Your task to perform on an android device: Open ESPN.com Image 0: 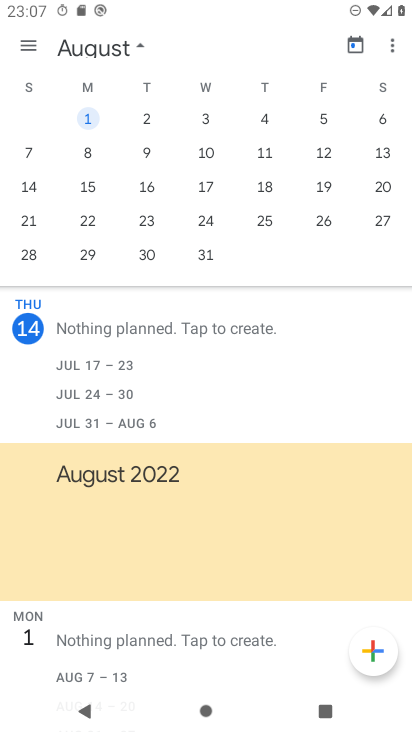
Step 0: press home button
Your task to perform on an android device: Open ESPN.com Image 1: 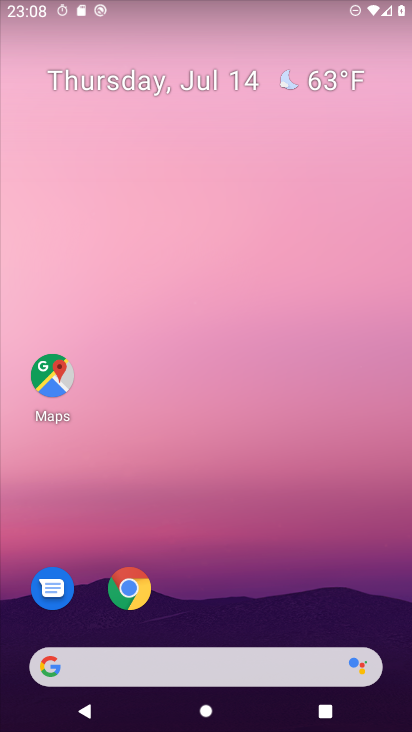
Step 1: drag from (347, 591) to (356, 169)
Your task to perform on an android device: Open ESPN.com Image 2: 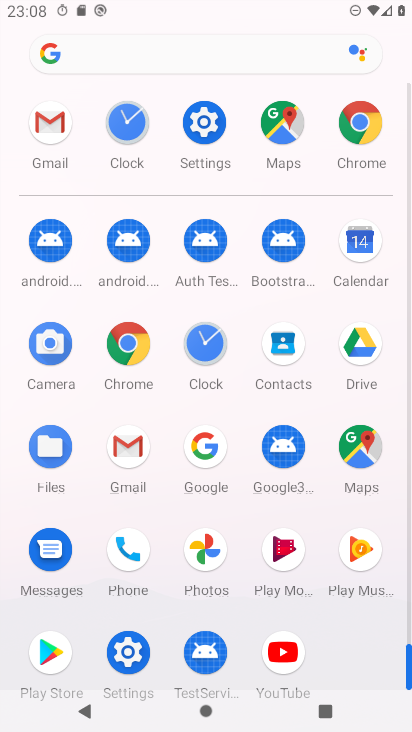
Step 2: click (373, 147)
Your task to perform on an android device: Open ESPN.com Image 3: 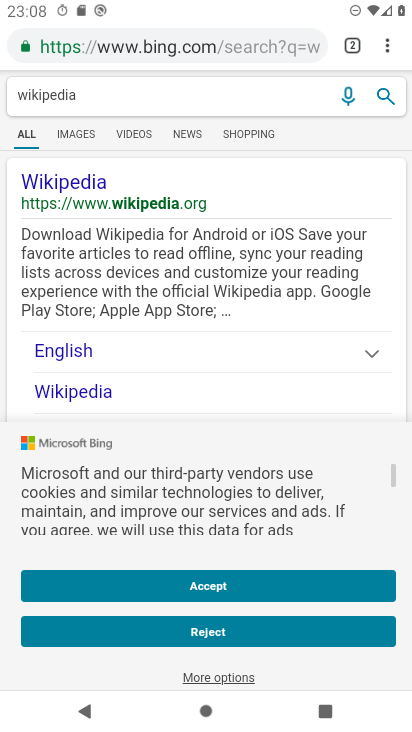
Step 3: click (248, 55)
Your task to perform on an android device: Open ESPN.com Image 4: 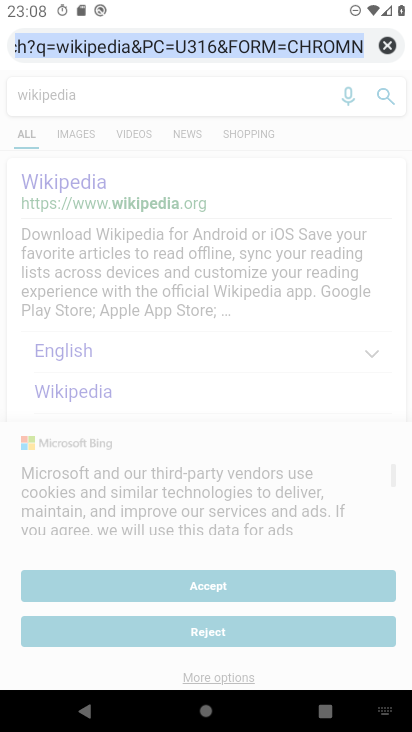
Step 4: type "espn.com"
Your task to perform on an android device: Open ESPN.com Image 5: 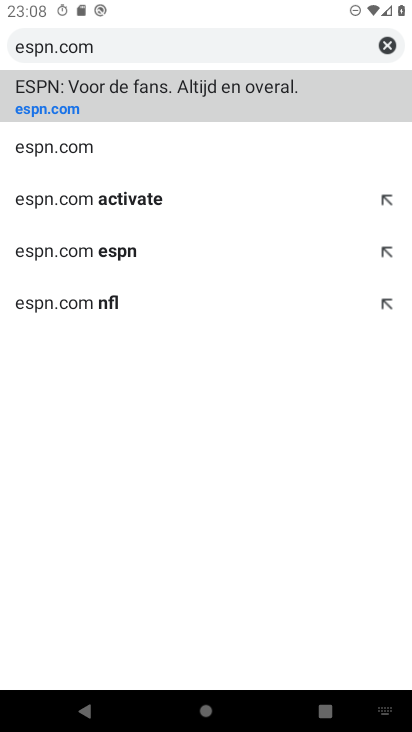
Step 5: click (330, 89)
Your task to perform on an android device: Open ESPN.com Image 6: 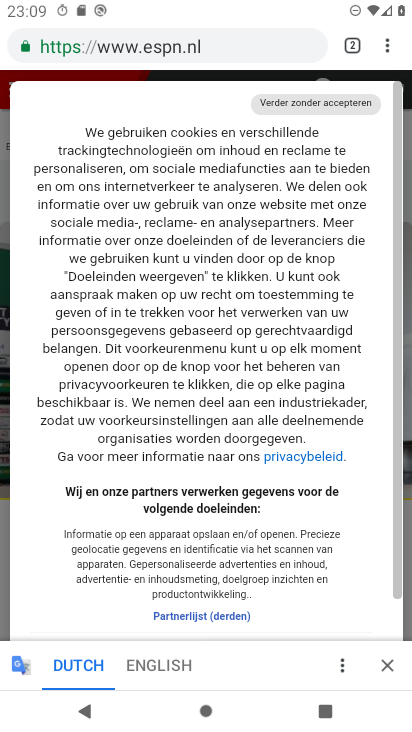
Step 6: task complete